Your task to perform on an android device: snooze an email in the gmail app Image 0: 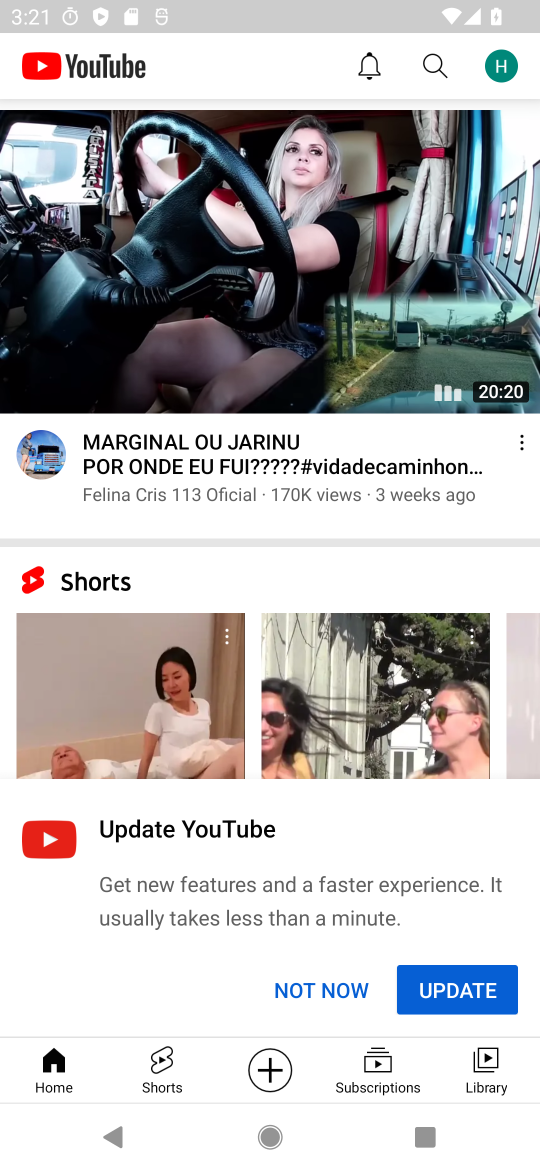
Step 0: press home button
Your task to perform on an android device: snooze an email in the gmail app Image 1: 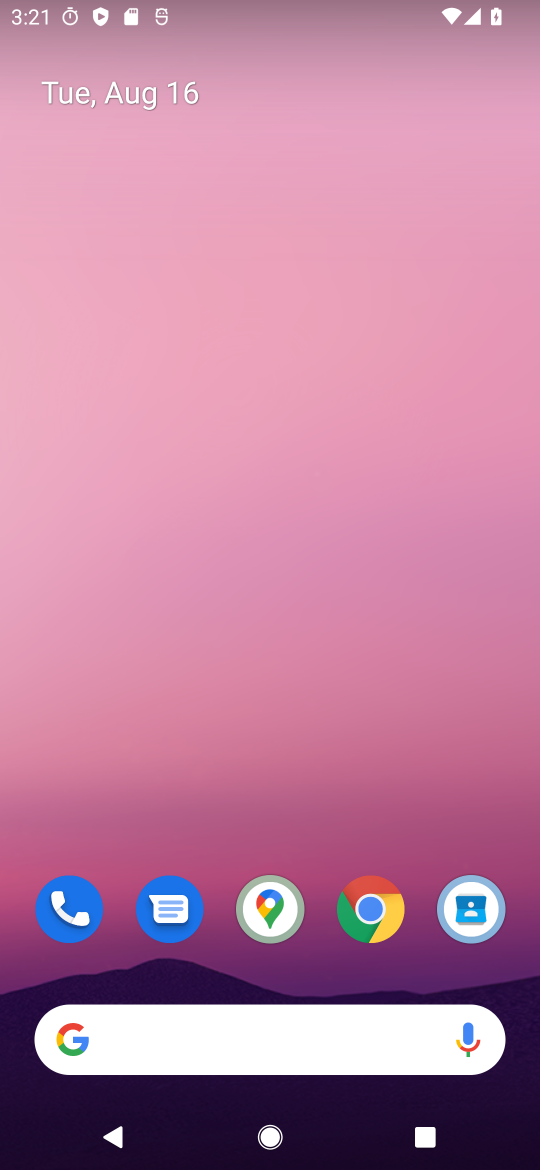
Step 1: drag from (260, 861) to (308, 165)
Your task to perform on an android device: snooze an email in the gmail app Image 2: 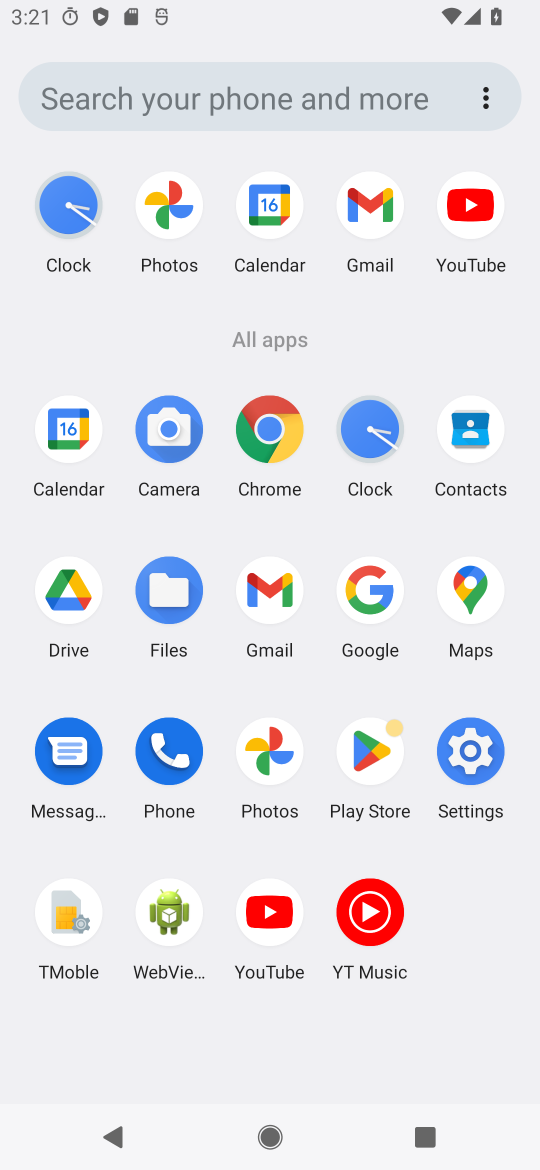
Step 2: click (373, 195)
Your task to perform on an android device: snooze an email in the gmail app Image 3: 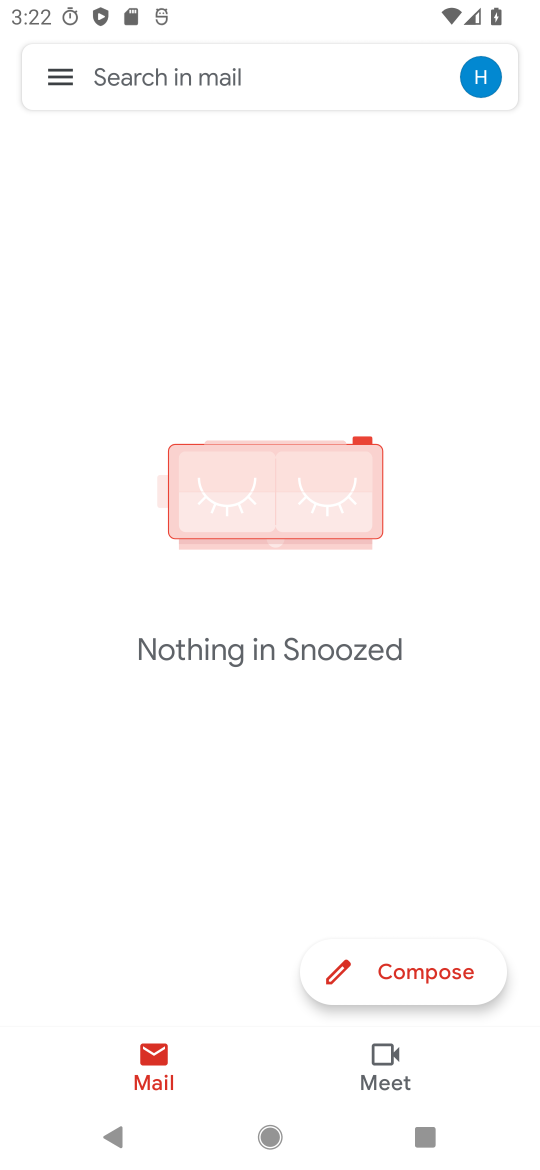
Step 3: click (60, 86)
Your task to perform on an android device: snooze an email in the gmail app Image 4: 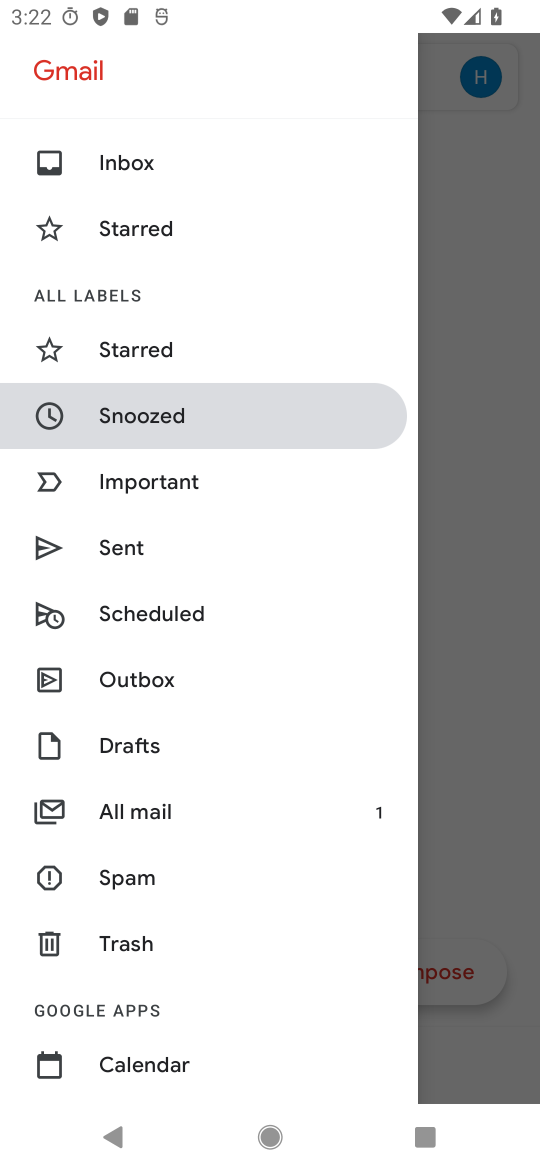
Step 4: click (63, 73)
Your task to perform on an android device: snooze an email in the gmail app Image 5: 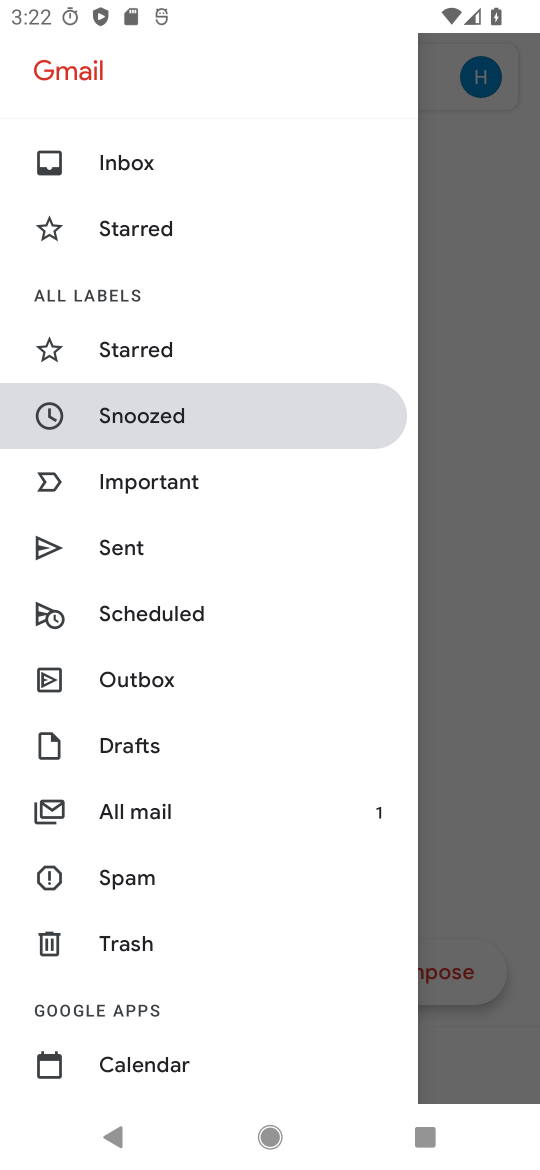
Step 5: click (182, 806)
Your task to perform on an android device: snooze an email in the gmail app Image 6: 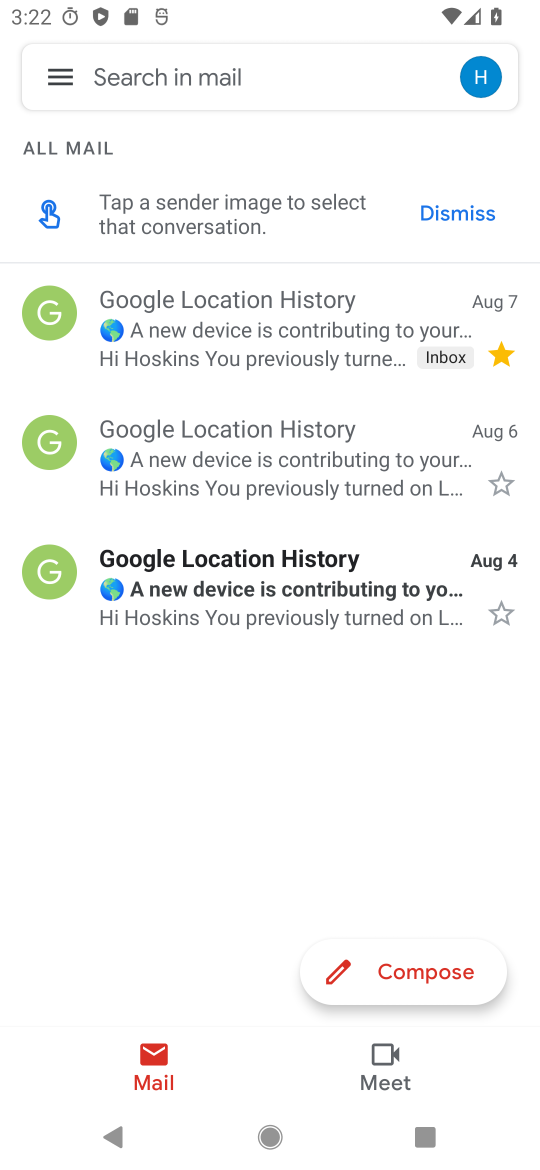
Step 6: click (321, 472)
Your task to perform on an android device: snooze an email in the gmail app Image 7: 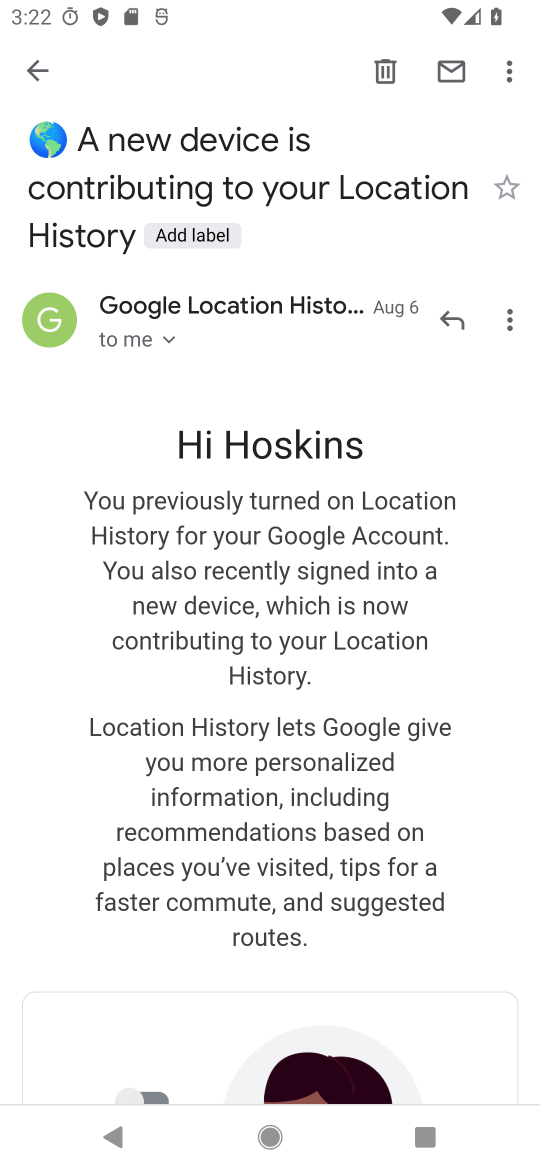
Step 7: click (511, 316)
Your task to perform on an android device: snooze an email in the gmail app Image 8: 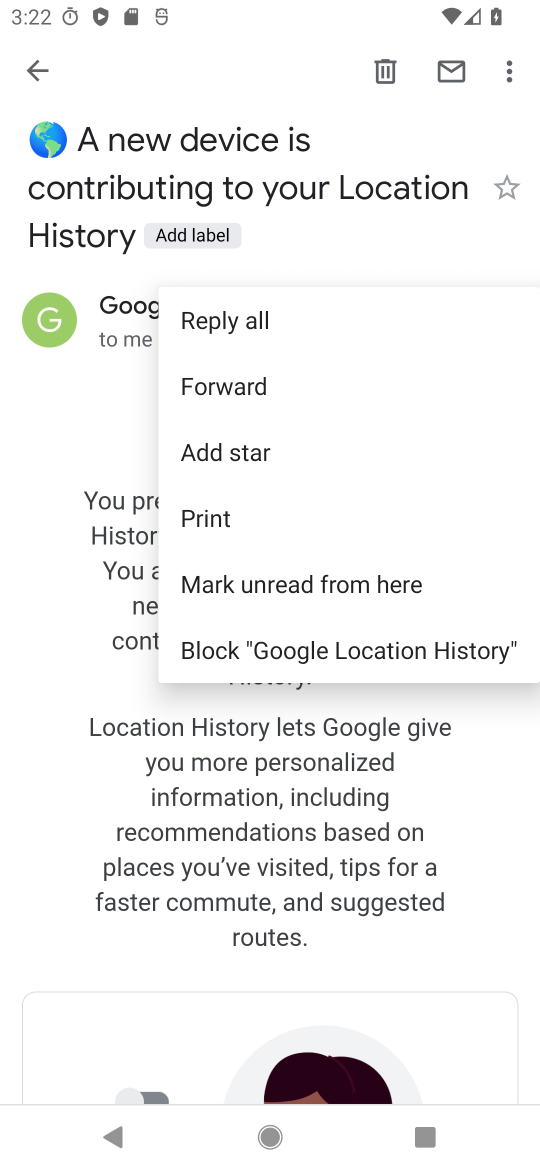
Step 8: click (503, 65)
Your task to perform on an android device: snooze an email in the gmail app Image 9: 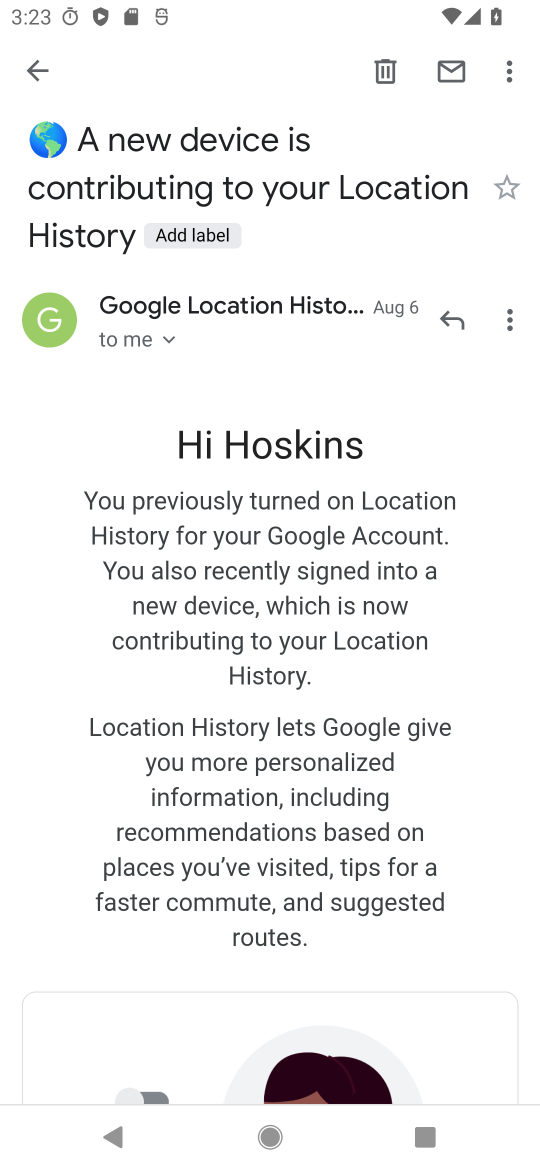
Step 9: click (505, 74)
Your task to perform on an android device: snooze an email in the gmail app Image 10: 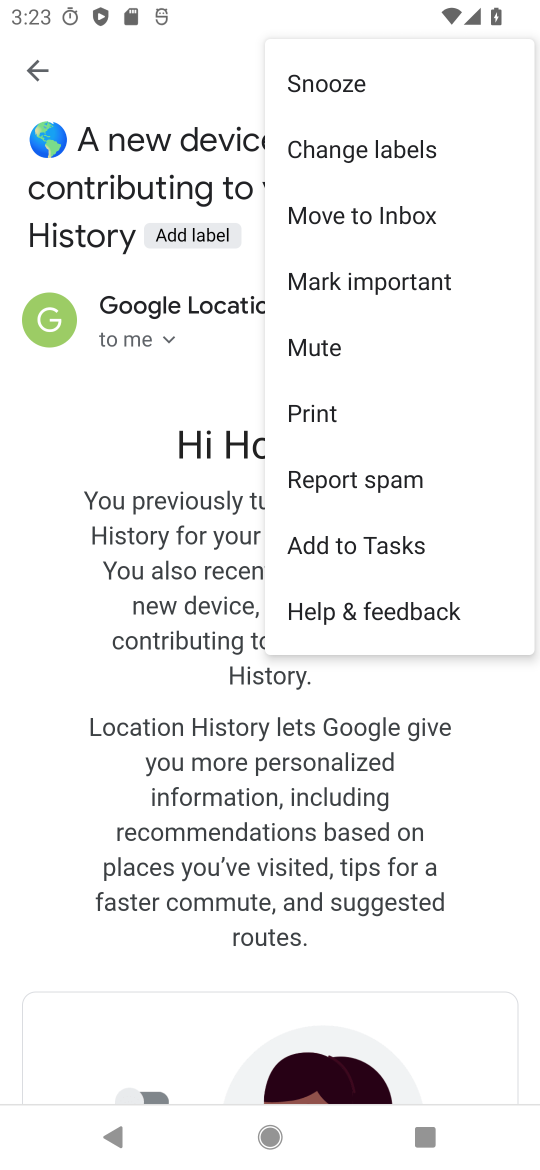
Step 10: click (378, 86)
Your task to perform on an android device: snooze an email in the gmail app Image 11: 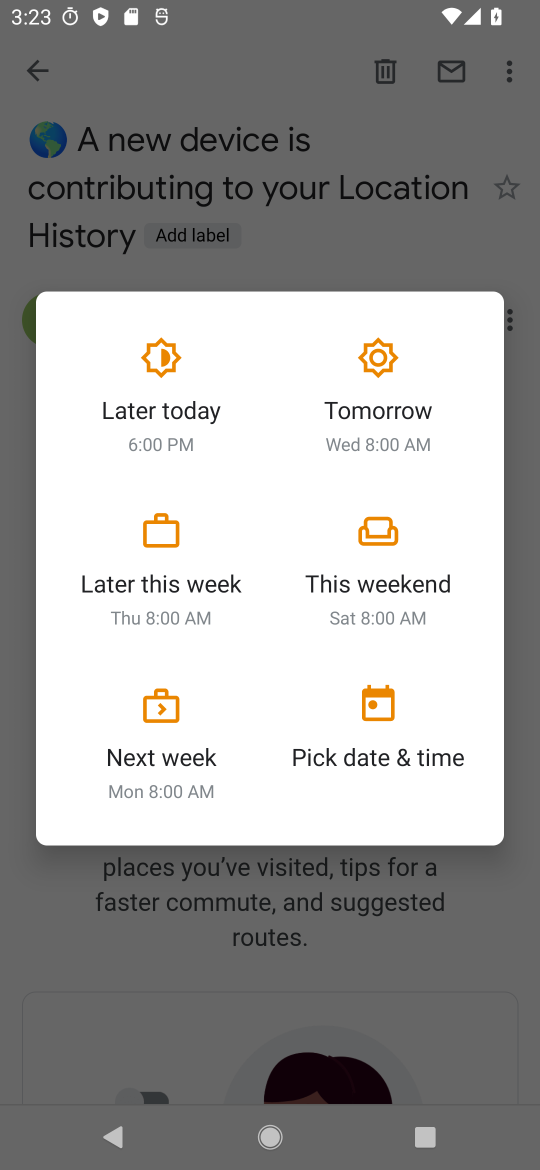
Step 11: click (387, 461)
Your task to perform on an android device: snooze an email in the gmail app Image 12: 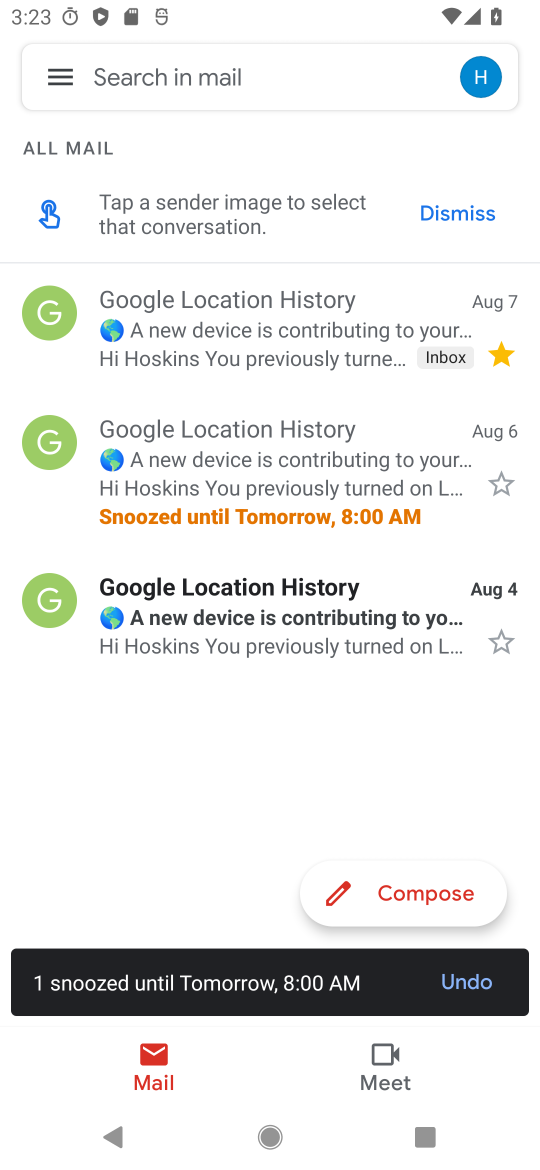
Step 12: task complete